Your task to perform on an android device: Go to display settings Image 0: 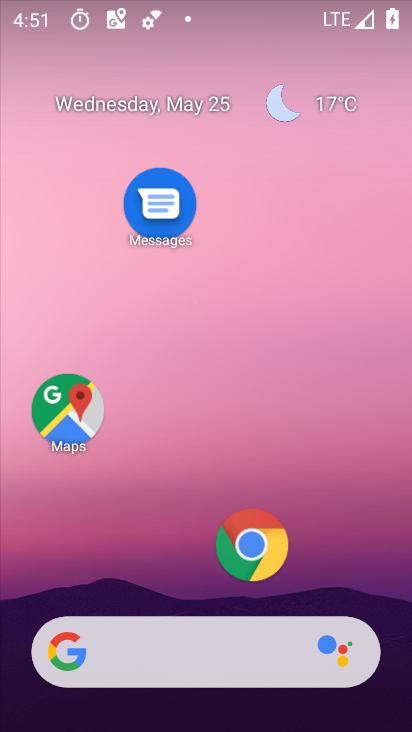
Step 0: drag from (344, 529) to (265, 196)
Your task to perform on an android device: Go to display settings Image 1: 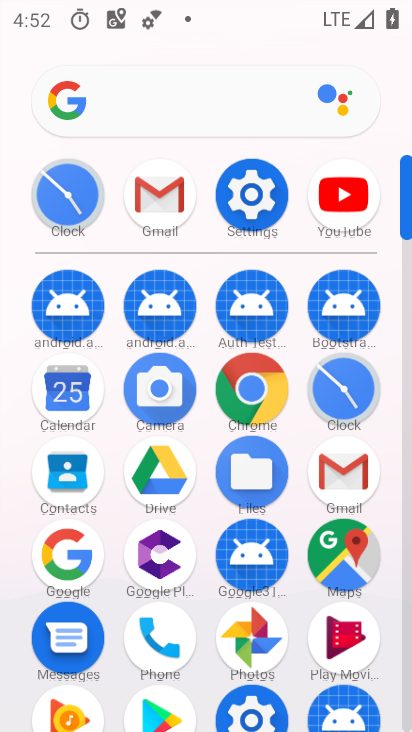
Step 1: click (248, 205)
Your task to perform on an android device: Go to display settings Image 2: 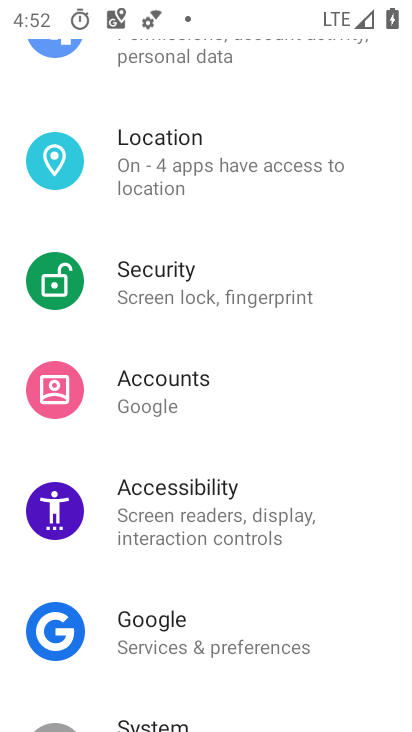
Step 2: drag from (191, 226) to (215, 415)
Your task to perform on an android device: Go to display settings Image 3: 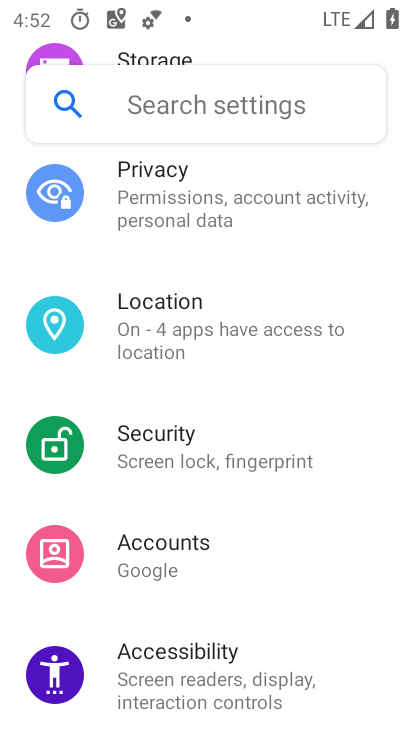
Step 3: drag from (237, 308) to (249, 641)
Your task to perform on an android device: Go to display settings Image 4: 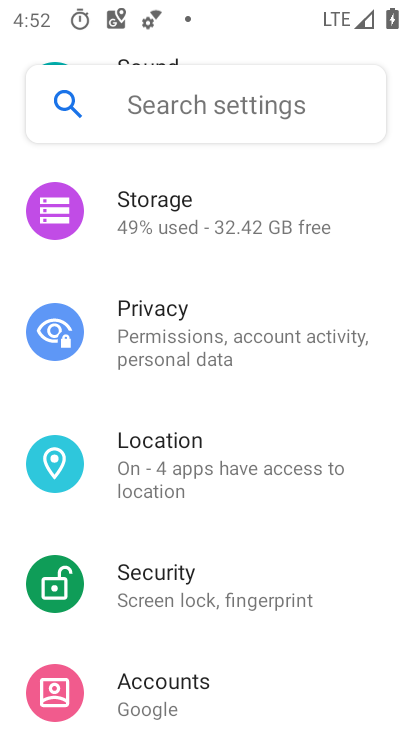
Step 4: drag from (221, 243) to (255, 553)
Your task to perform on an android device: Go to display settings Image 5: 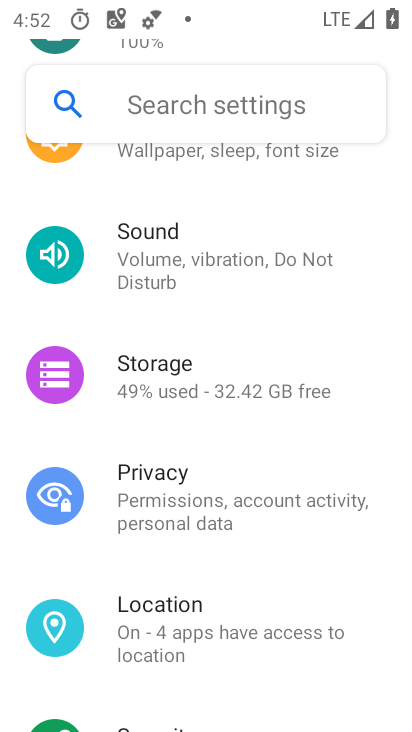
Step 5: drag from (307, 255) to (261, 621)
Your task to perform on an android device: Go to display settings Image 6: 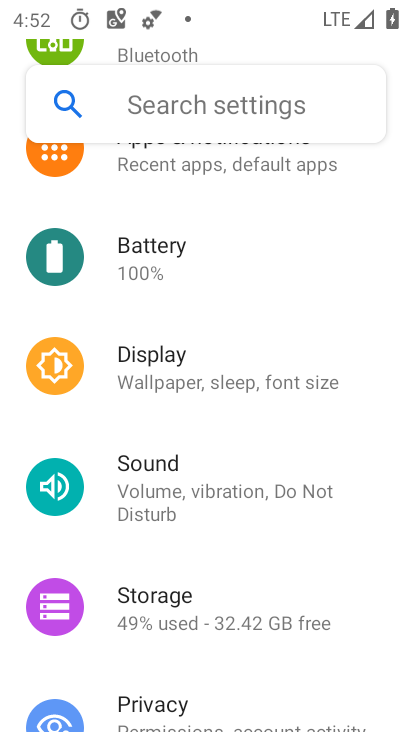
Step 6: click (225, 380)
Your task to perform on an android device: Go to display settings Image 7: 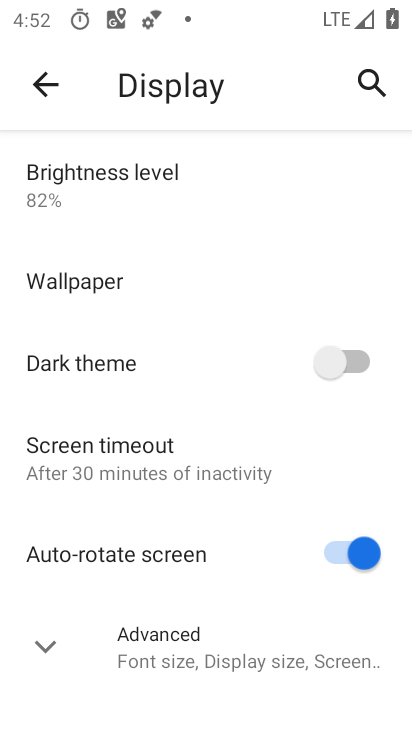
Step 7: task complete